Your task to perform on an android device: turn on improve location accuracy Image 0: 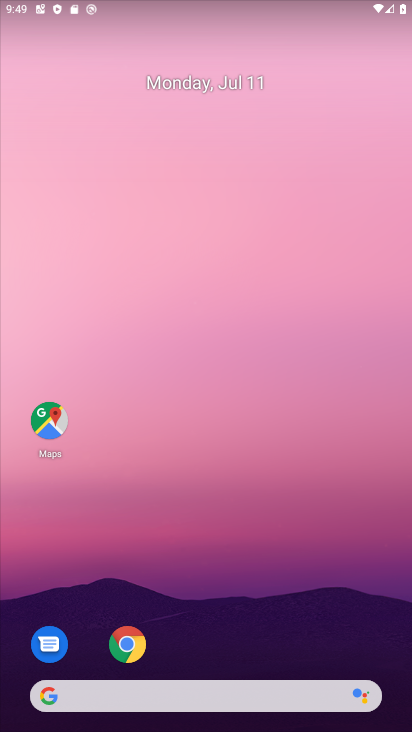
Step 0: drag from (221, 658) to (213, 1)
Your task to perform on an android device: turn on improve location accuracy Image 1: 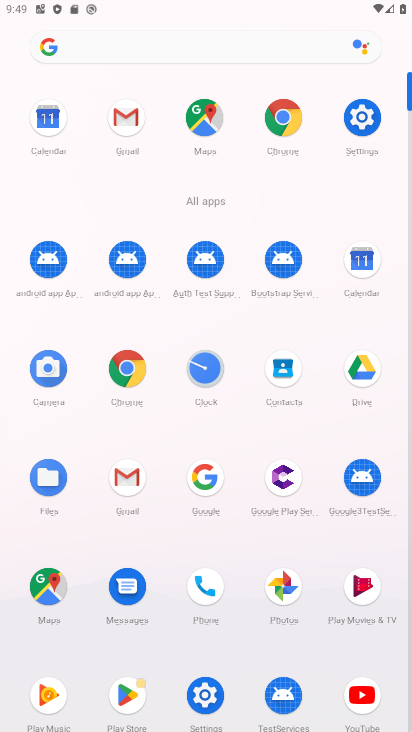
Step 1: click (361, 110)
Your task to perform on an android device: turn on improve location accuracy Image 2: 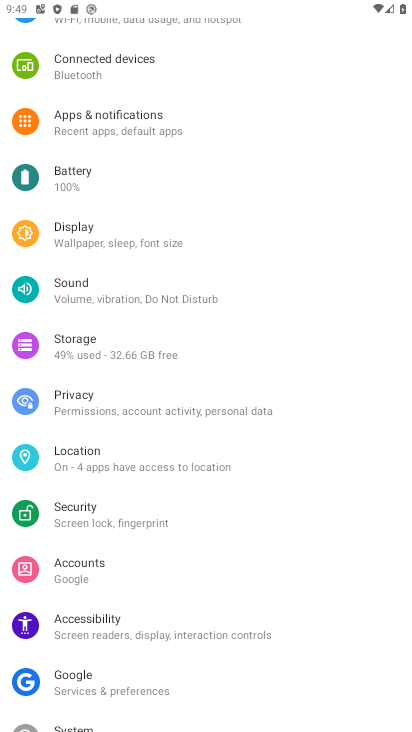
Step 2: click (116, 450)
Your task to perform on an android device: turn on improve location accuracy Image 3: 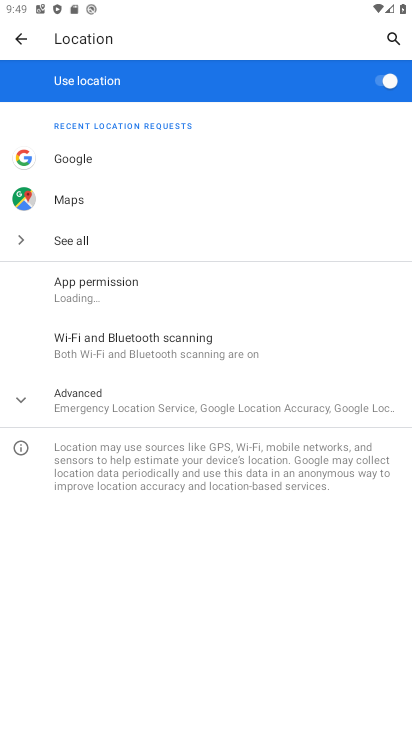
Step 3: click (35, 398)
Your task to perform on an android device: turn on improve location accuracy Image 4: 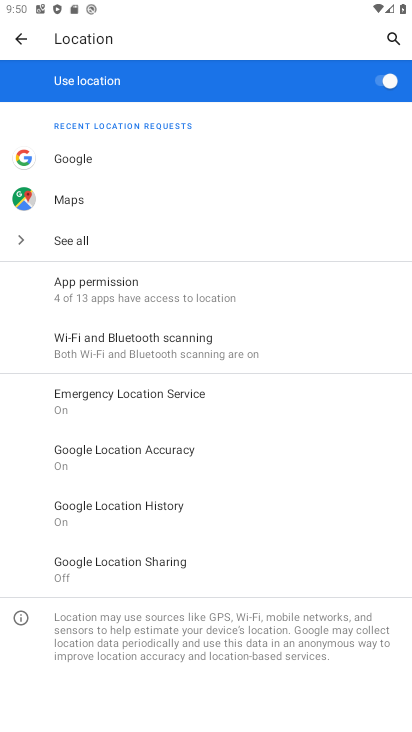
Step 4: click (136, 452)
Your task to perform on an android device: turn on improve location accuracy Image 5: 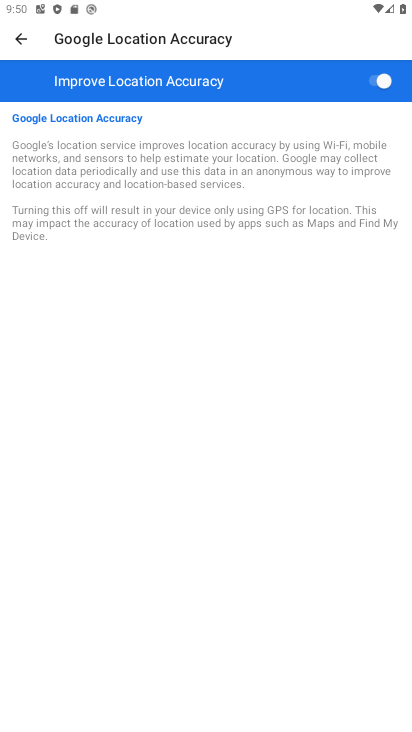
Step 5: task complete